Your task to perform on an android device: See recent photos Image 0: 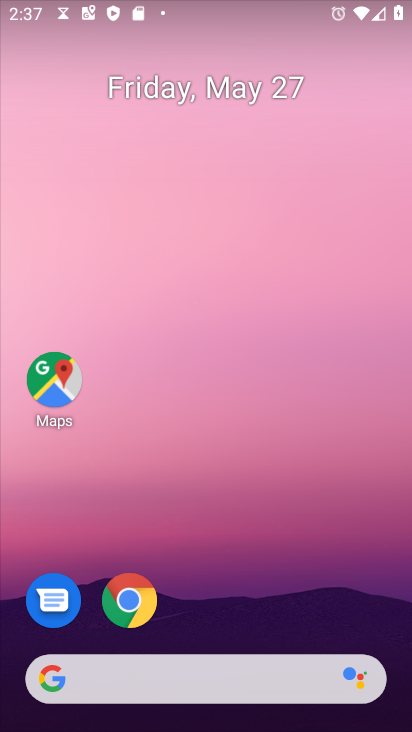
Step 0: drag from (232, 564) to (157, 32)
Your task to perform on an android device: See recent photos Image 1: 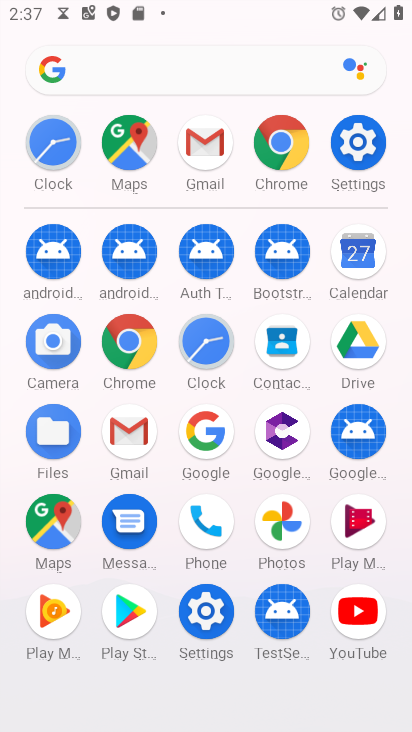
Step 1: drag from (7, 528) to (10, 186)
Your task to perform on an android device: See recent photos Image 2: 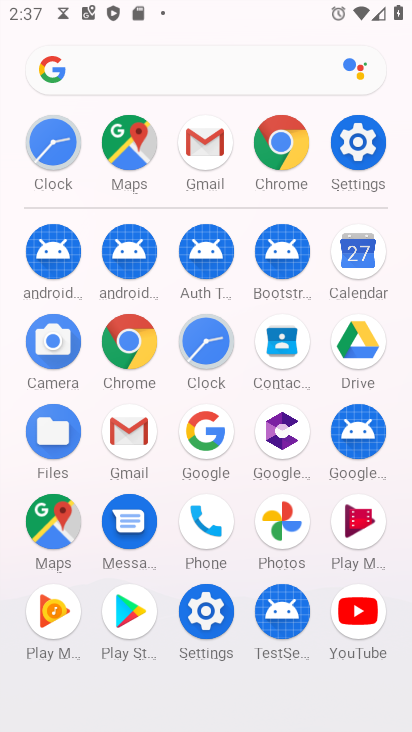
Step 2: click (272, 510)
Your task to perform on an android device: See recent photos Image 3: 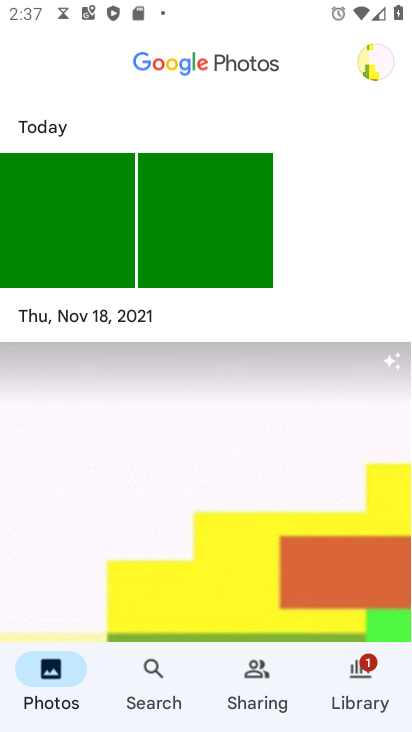
Step 3: task complete